Your task to perform on an android device: Search for pizza restaurants on Maps Image 0: 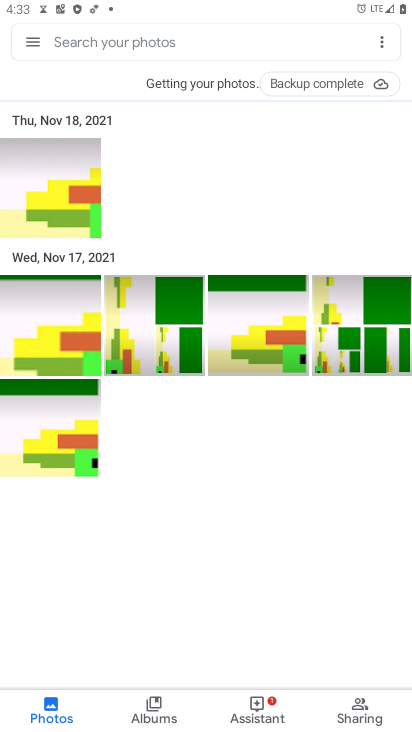
Step 0: press home button
Your task to perform on an android device: Search for pizza restaurants on Maps Image 1: 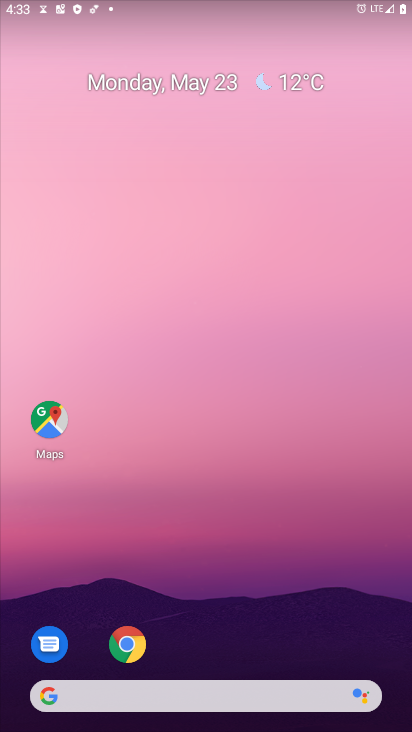
Step 1: click (40, 411)
Your task to perform on an android device: Search for pizza restaurants on Maps Image 2: 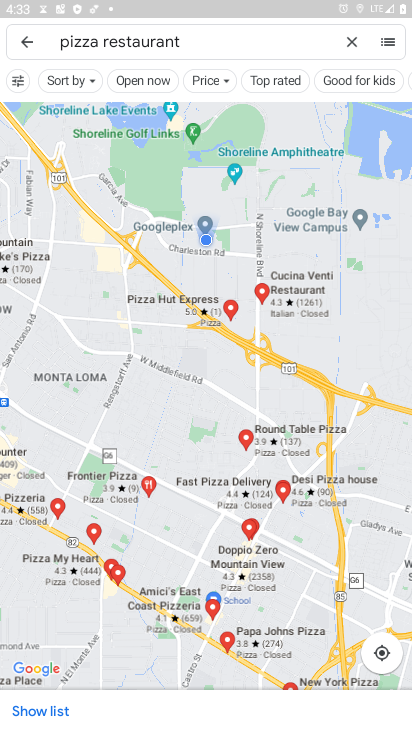
Step 2: task complete